Your task to perform on an android device: turn off wifi Image 0: 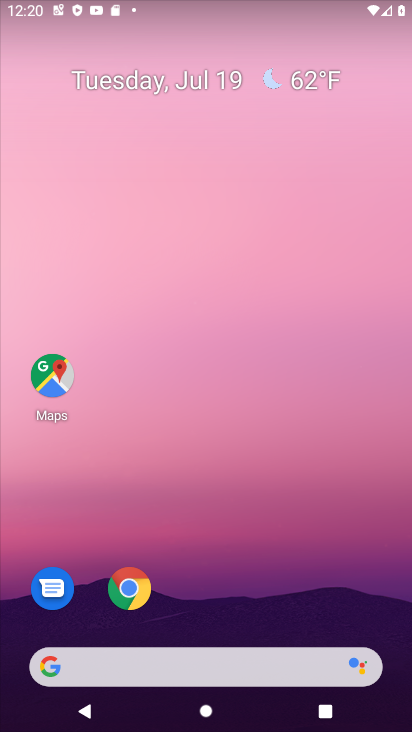
Step 0: drag from (242, 570) to (241, 81)
Your task to perform on an android device: turn off wifi Image 1: 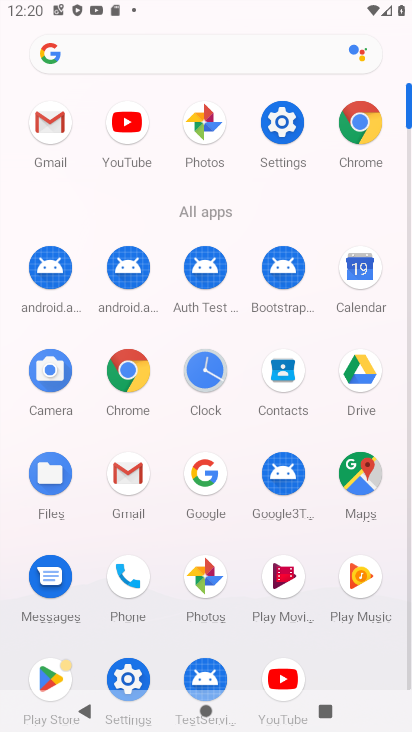
Step 1: click (283, 132)
Your task to perform on an android device: turn off wifi Image 2: 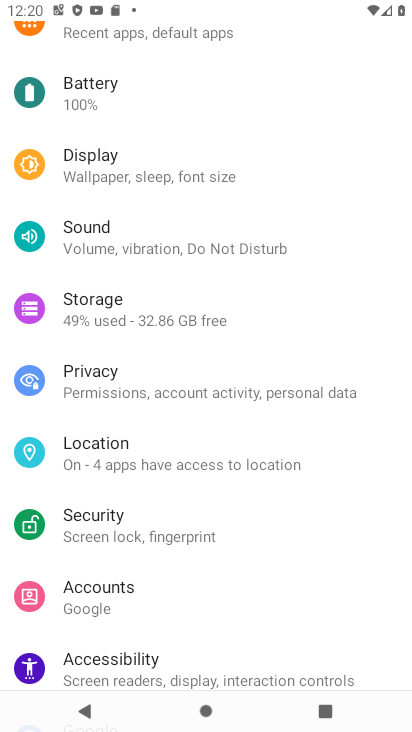
Step 2: drag from (194, 63) to (225, 261)
Your task to perform on an android device: turn off wifi Image 3: 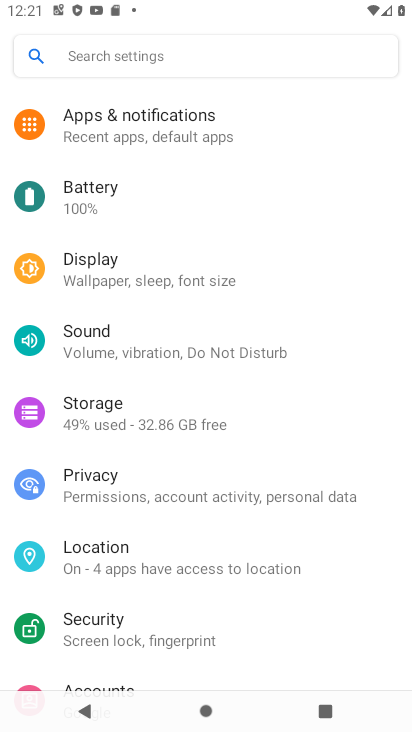
Step 3: drag from (198, 142) to (245, 364)
Your task to perform on an android device: turn off wifi Image 4: 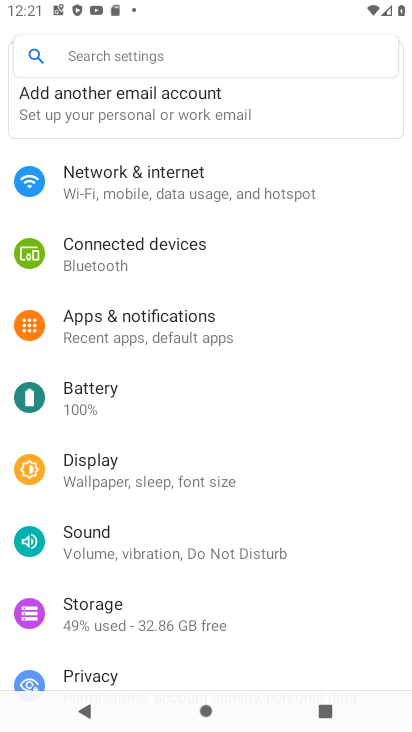
Step 4: click (201, 185)
Your task to perform on an android device: turn off wifi Image 5: 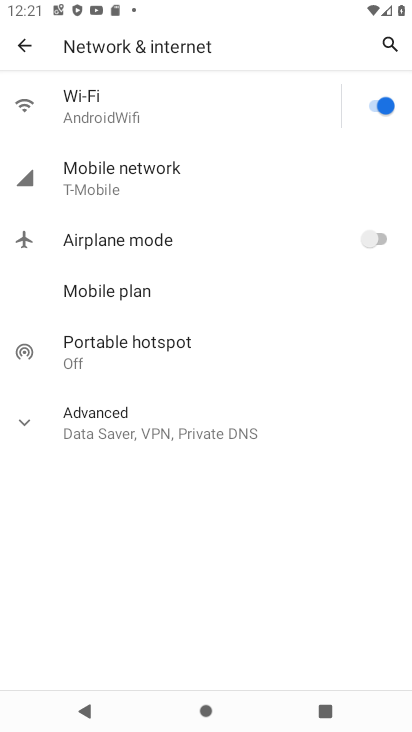
Step 5: click (378, 110)
Your task to perform on an android device: turn off wifi Image 6: 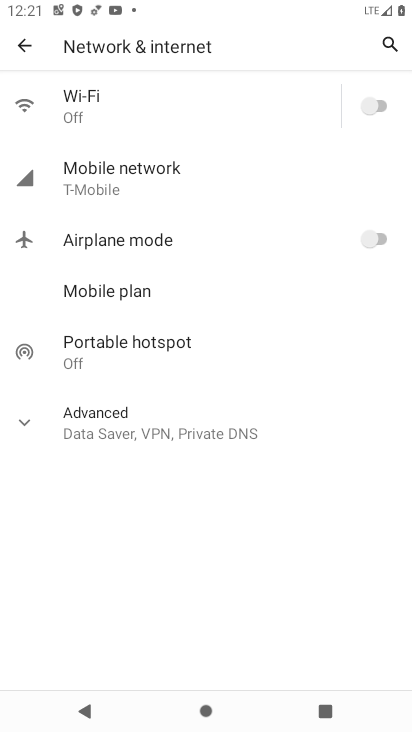
Step 6: task complete